Your task to perform on an android device: choose inbox layout in the gmail app Image 0: 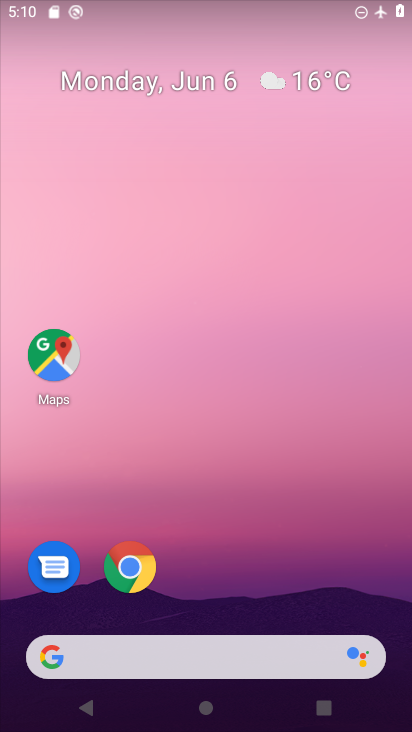
Step 0: drag from (239, 693) to (128, 163)
Your task to perform on an android device: choose inbox layout in the gmail app Image 1: 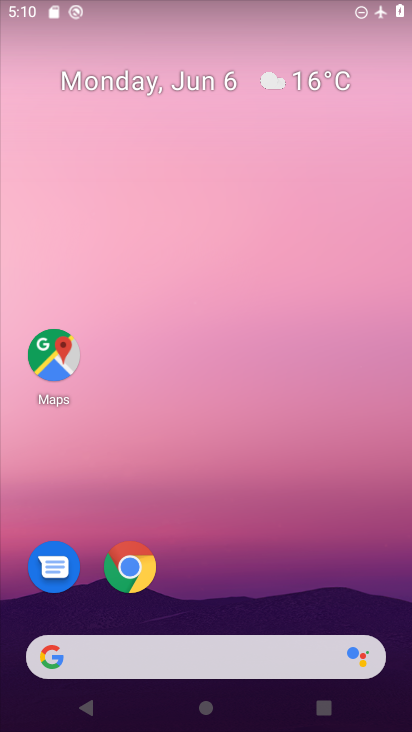
Step 1: drag from (291, 670) to (161, 164)
Your task to perform on an android device: choose inbox layout in the gmail app Image 2: 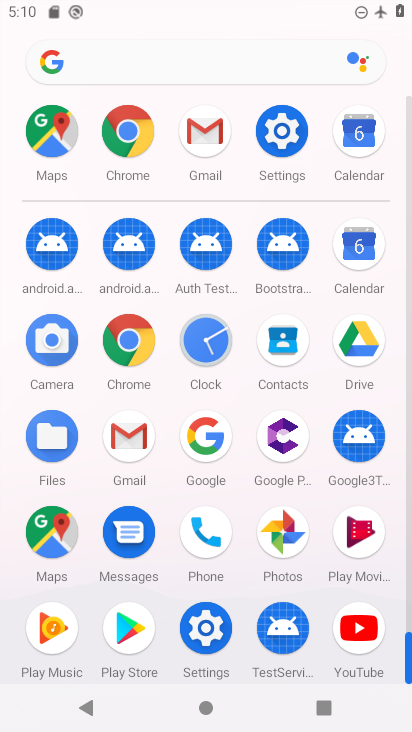
Step 2: click (138, 430)
Your task to perform on an android device: choose inbox layout in the gmail app Image 3: 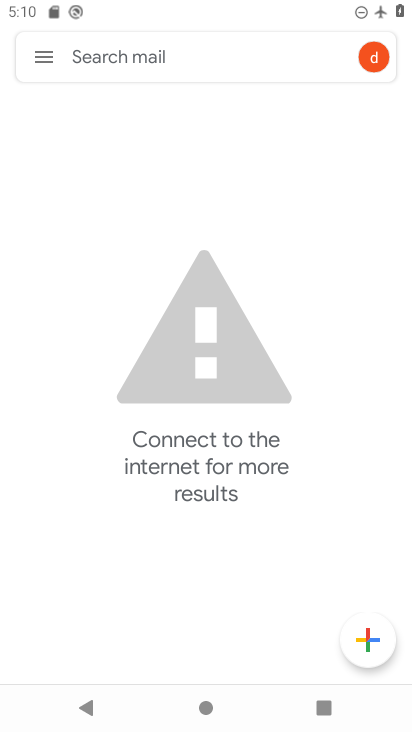
Step 3: click (48, 57)
Your task to perform on an android device: choose inbox layout in the gmail app Image 4: 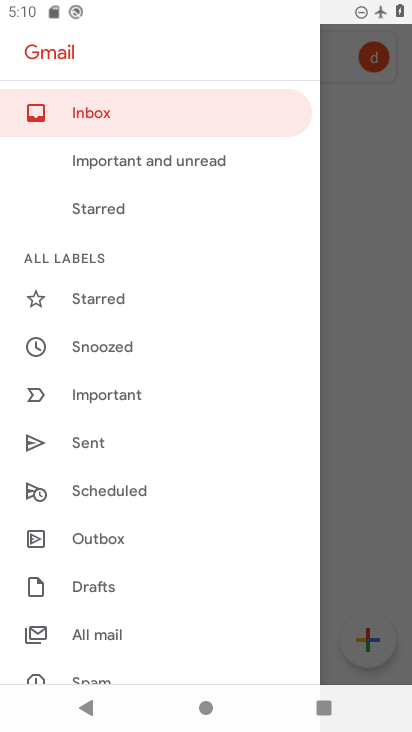
Step 4: drag from (147, 538) to (124, 299)
Your task to perform on an android device: choose inbox layout in the gmail app Image 5: 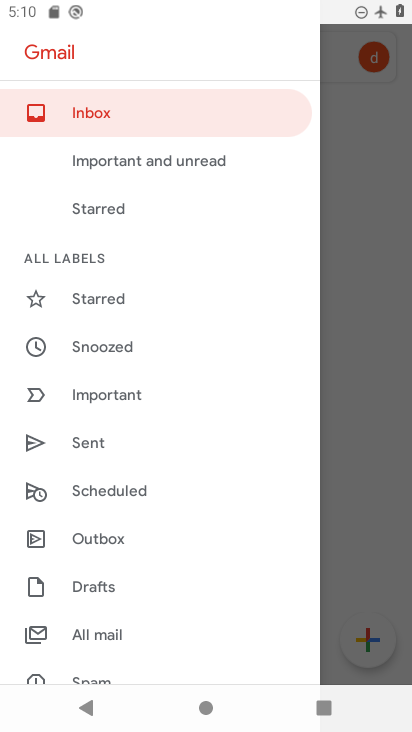
Step 5: drag from (164, 560) to (115, 356)
Your task to perform on an android device: choose inbox layout in the gmail app Image 6: 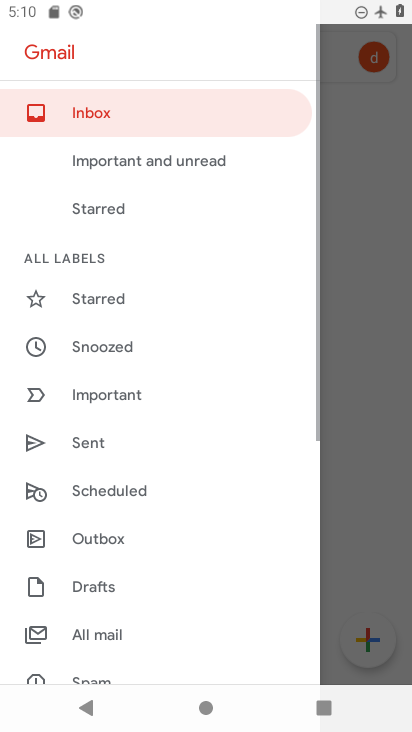
Step 6: drag from (156, 339) to (180, 74)
Your task to perform on an android device: choose inbox layout in the gmail app Image 7: 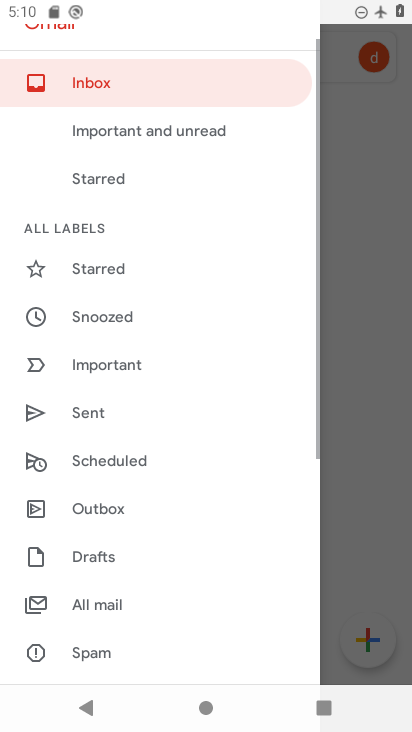
Step 7: drag from (188, 319) to (211, 26)
Your task to perform on an android device: choose inbox layout in the gmail app Image 8: 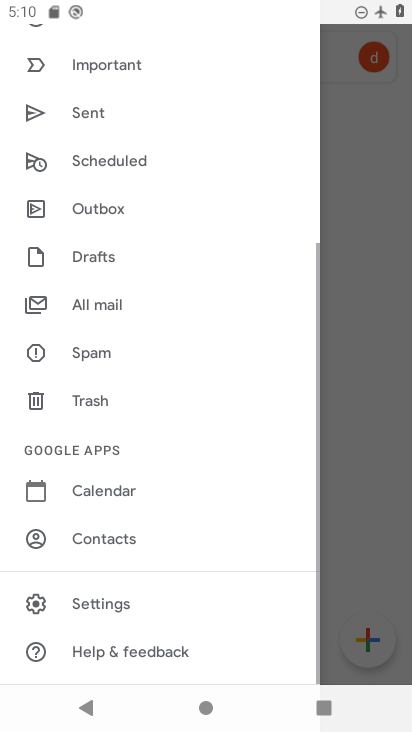
Step 8: drag from (127, 211) to (121, 314)
Your task to perform on an android device: choose inbox layout in the gmail app Image 9: 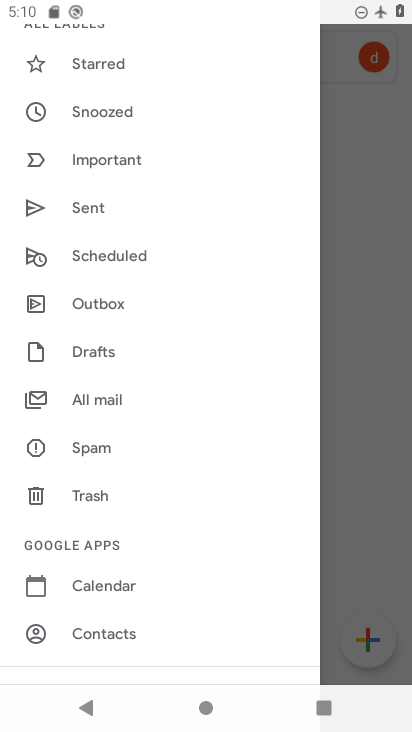
Step 9: click (85, 314)
Your task to perform on an android device: choose inbox layout in the gmail app Image 10: 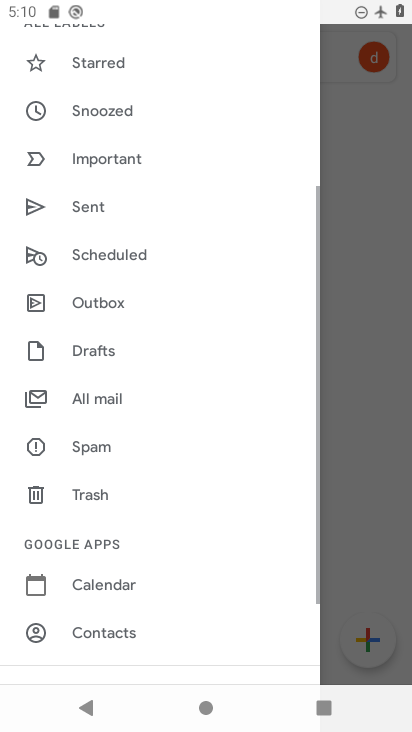
Step 10: drag from (119, 517) to (116, 215)
Your task to perform on an android device: choose inbox layout in the gmail app Image 11: 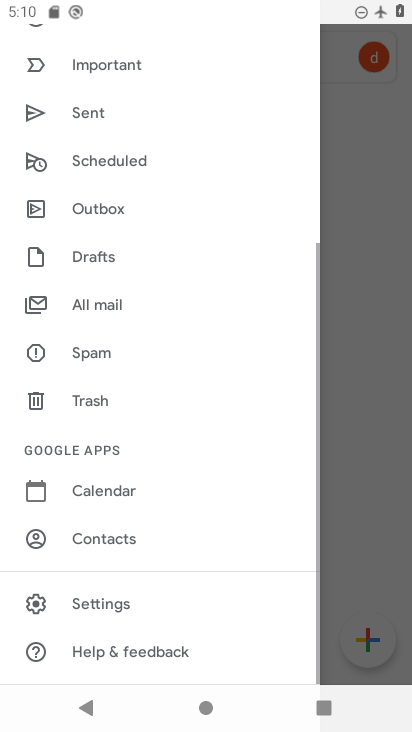
Step 11: drag from (122, 402) to (107, 244)
Your task to perform on an android device: choose inbox layout in the gmail app Image 12: 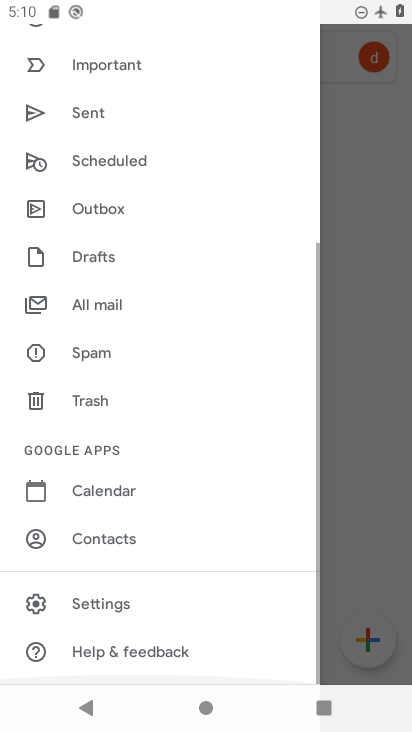
Step 12: drag from (118, 498) to (134, 278)
Your task to perform on an android device: choose inbox layout in the gmail app Image 13: 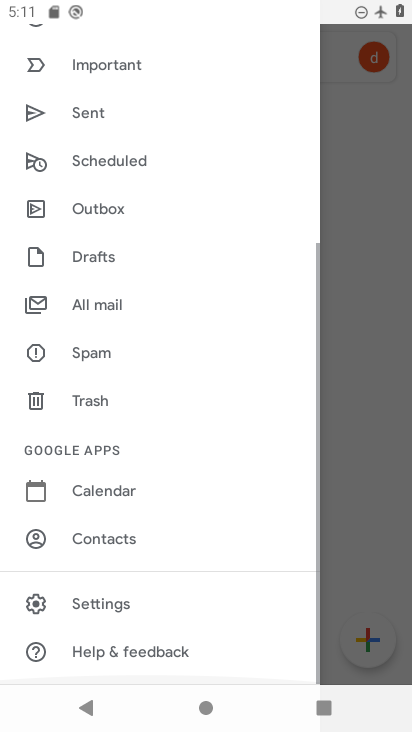
Step 13: click (118, 604)
Your task to perform on an android device: choose inbox layout in the gmail app Image 14: 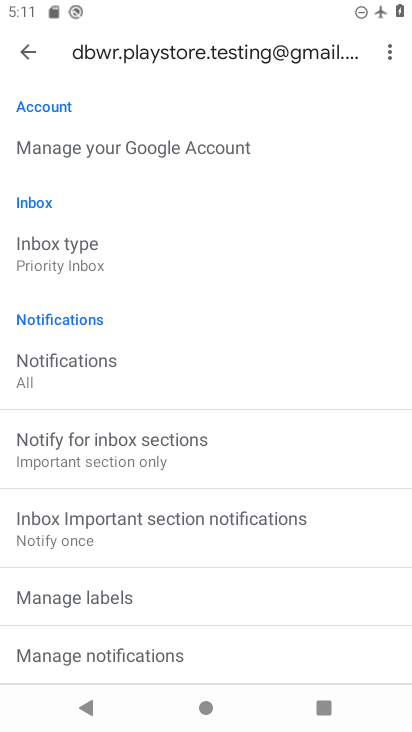
Step 14: click (56, 244)
Your task to perform on an android device: choose inbox layout in the gmail app Image 15: 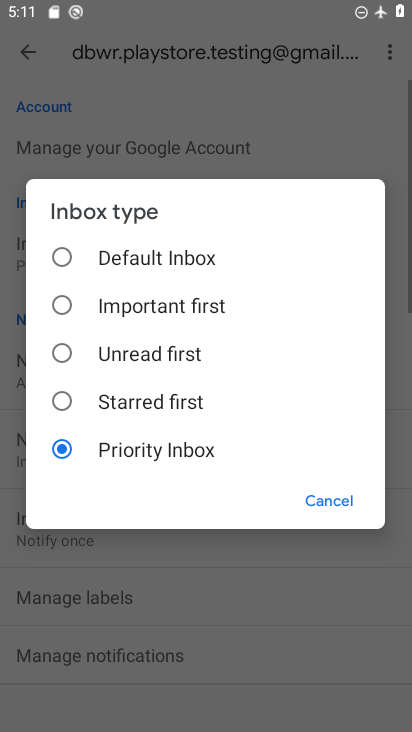
Step 15: click (64, 258)
Your task to perform on an android device: choose inbox layout in the gmail app Image 16: 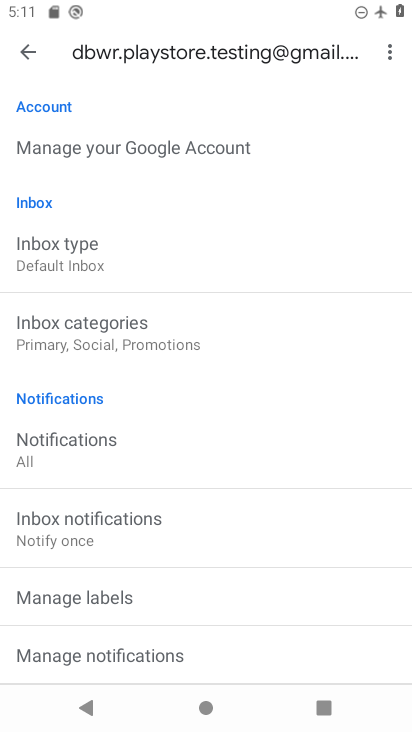
Step 16: click (57, 254)
Your task to perform on an android device: choose inbox layout in the gmail app Image 17: 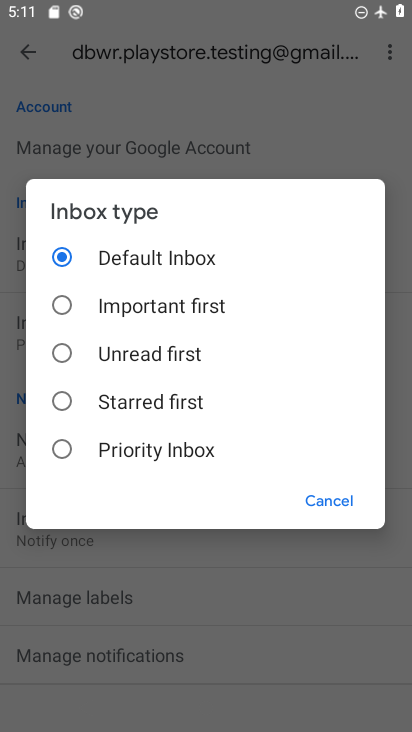
Step 17: click (334, 491)
Your task to perform on an android device: choose inbox layout in the gmail app Image 18: 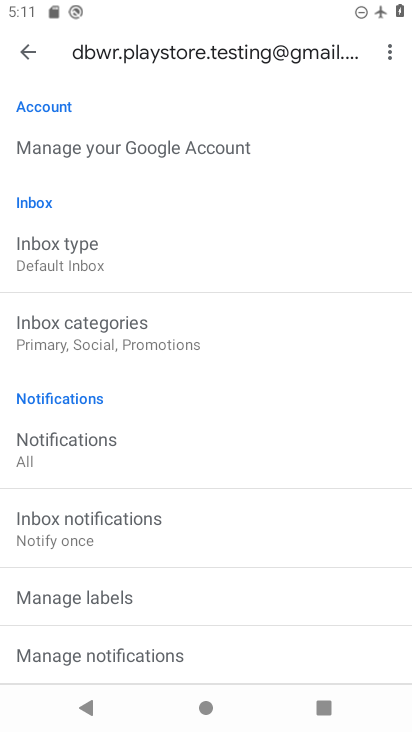
Step 18: task complete